Your task to perform on an android device: turn off wifi Image 0: 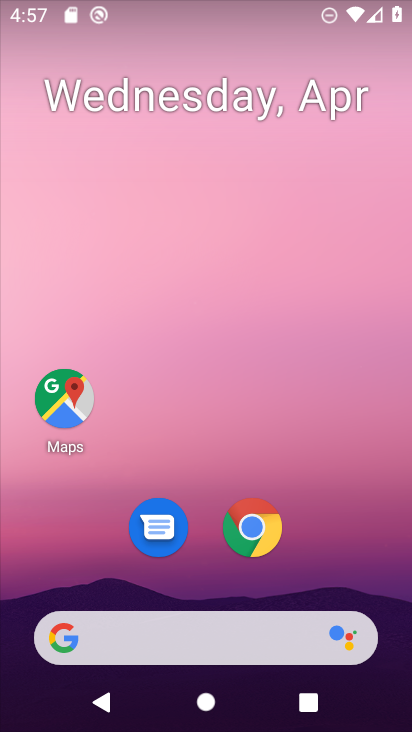
Step 0: drag from (368, 588) to (378, 23)
Your task to perform on an android device: turn off wifi Image 1: 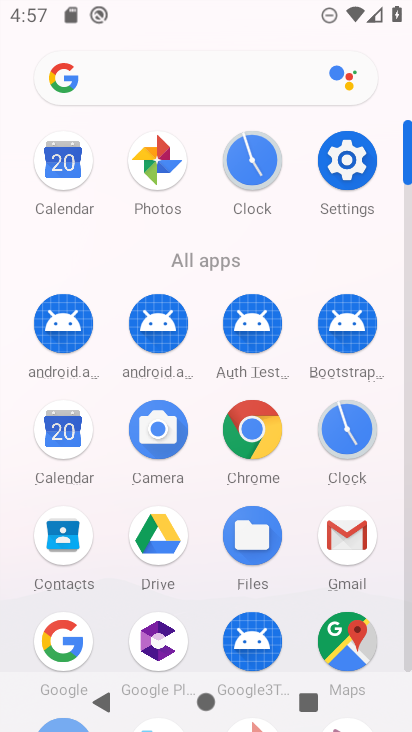
Step 1: click (330, 165)
Your task to perform on an android device: turn off wifi Image 2: 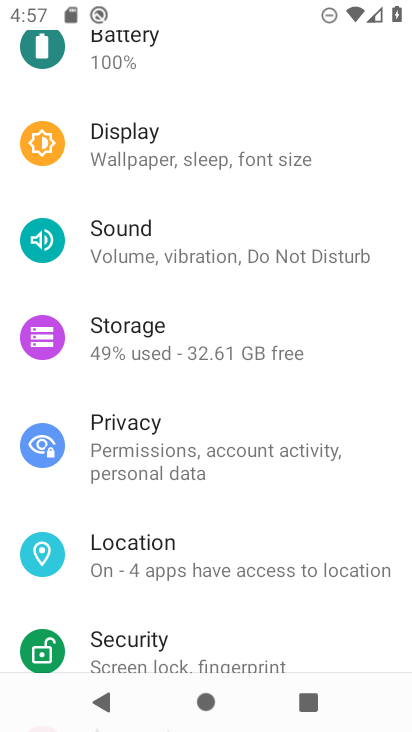
Step 2: drag from (334, 195) to (312, 593)
Your task to perform on an android device: turn off wifi Image 3: 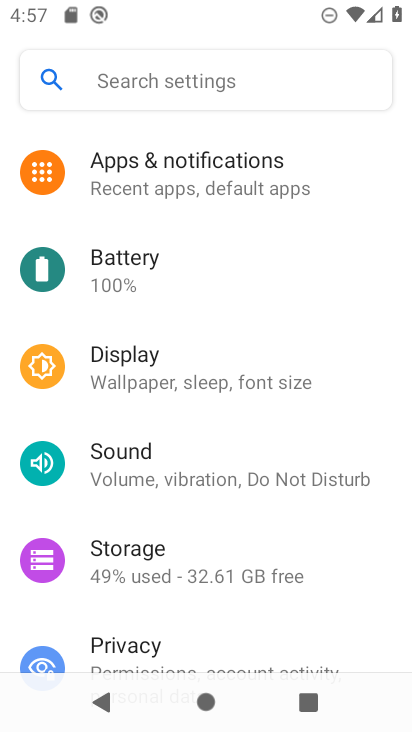
Step 3: drag from (233, 219) to (239, 552)
Your task to perform on an android device: turn off wifi Image 4: 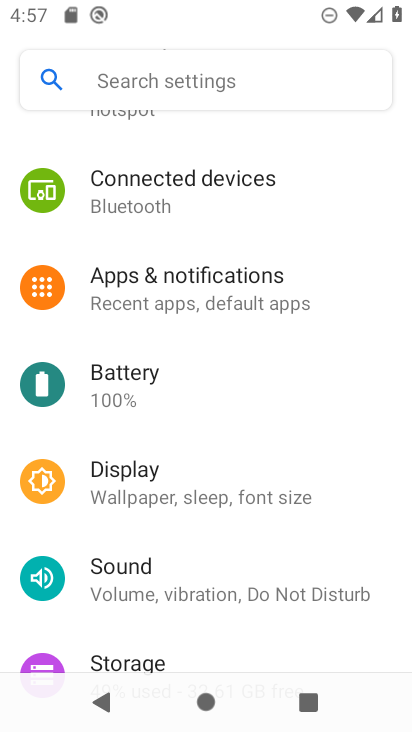
Step 4: drag from (218, 223) to (244, 561)
Your task to perform on an android device: turn off wifi Image 5: 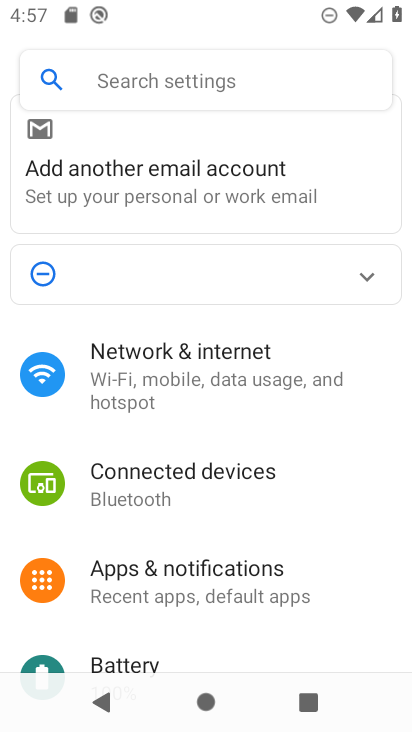
Step 5: click (179, 376)
Your task to perform on an android device: turn off wifi Image 6: 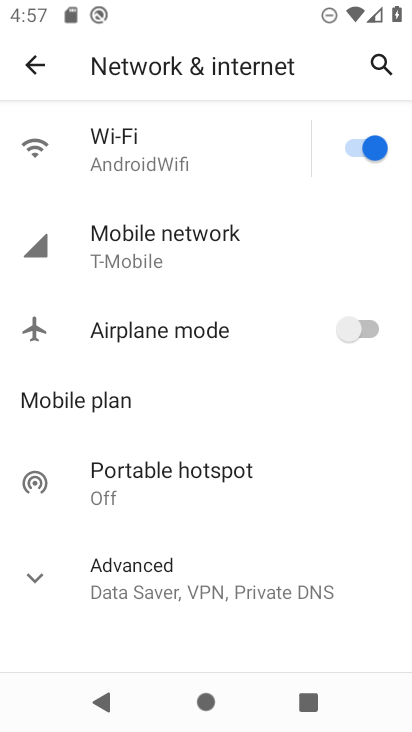
Step 6: click (378, 146)
Your task to perform on an android device: turn off wifi Image 7: 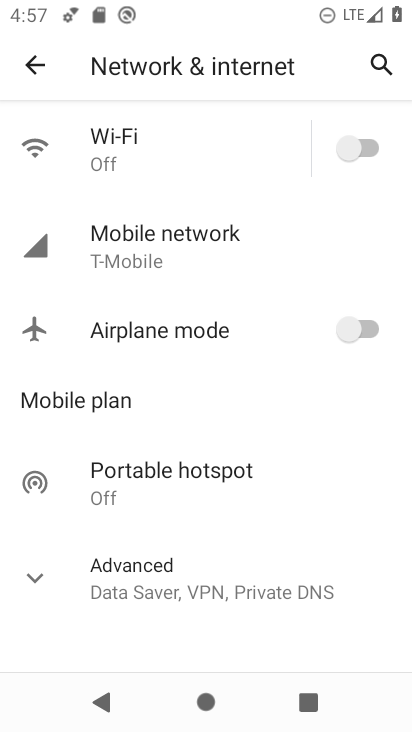
Step 7: task complete